Your task to perform on an android device: Open the stopwatch Image 0: 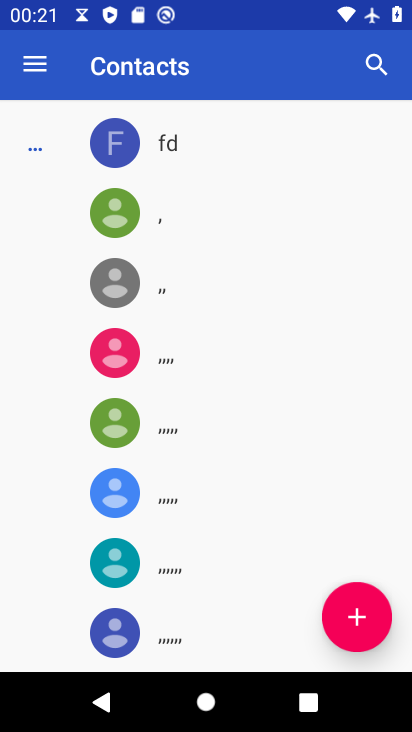
Step 0: press home button
Your task to perform on an android device: Open the stopwatch Image 1: 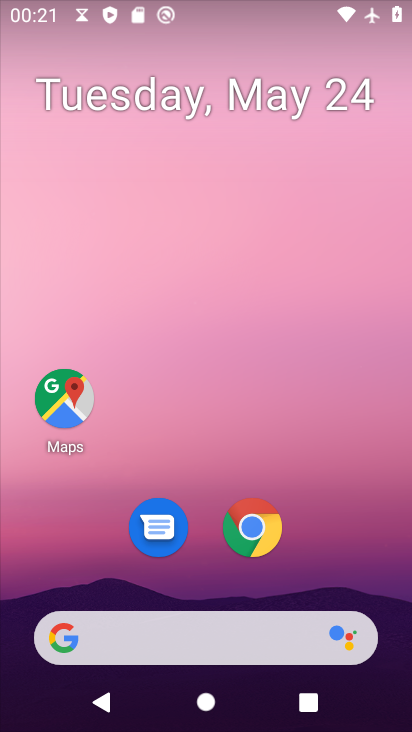
Step 1: drag from (188, 646) to (315, 175)
Your task to perform on an android device: Open the stopwatch Image 2: 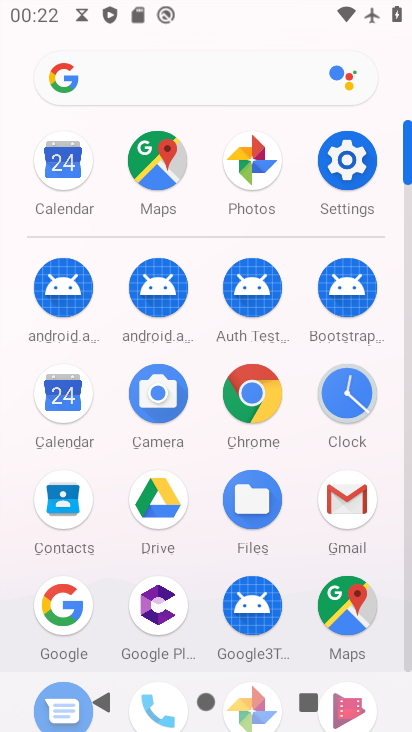
Step 2: click (345, 399)
Your task to perform on an android device: Open the stopwatch Image 3: 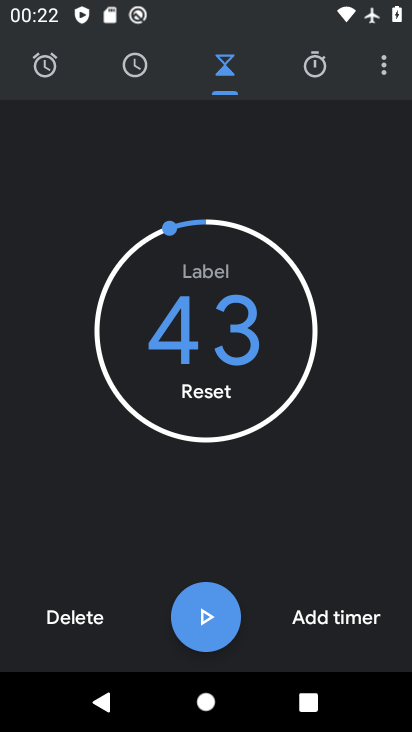
Step 3: click (327, 63)
Your task to perform on an android device: Open the stopwatch Image 4: 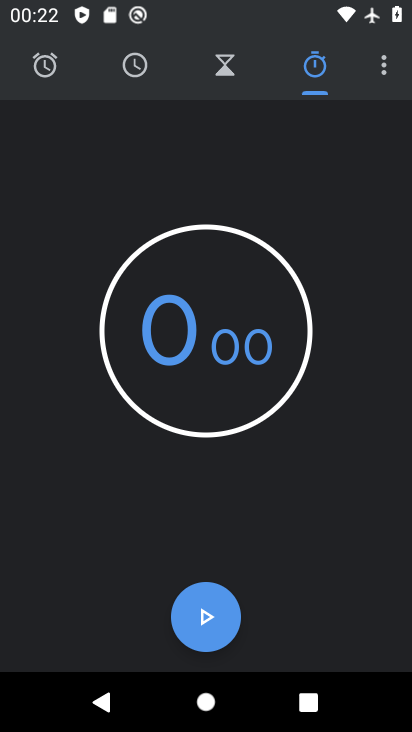
Step 4: task complete